Your task to perform on an android device: turn pop-ups off in chrome Image 0: 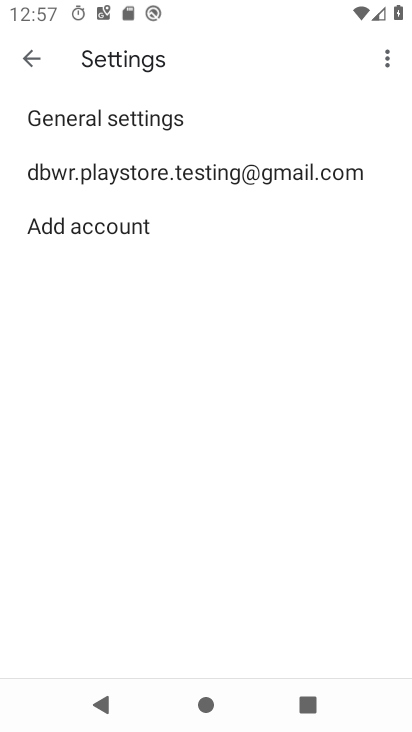
Step 0: press home button
Your task to perform on an android device: turn pop-ups off in chrome Image 1: 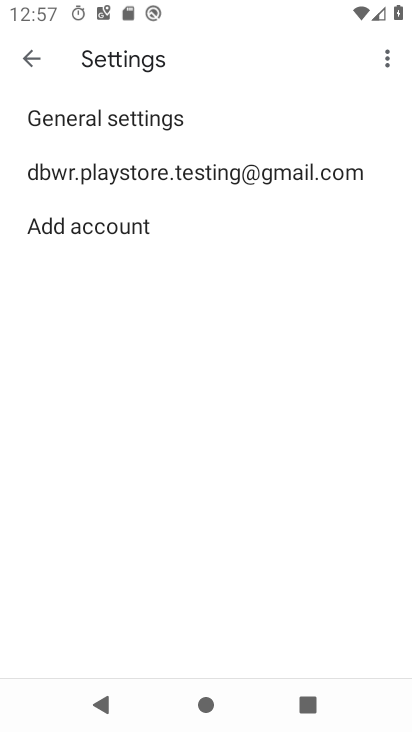
Step 1: press home button
Your task to perform on an android device: turn pop-ups off in chrome Image 2: 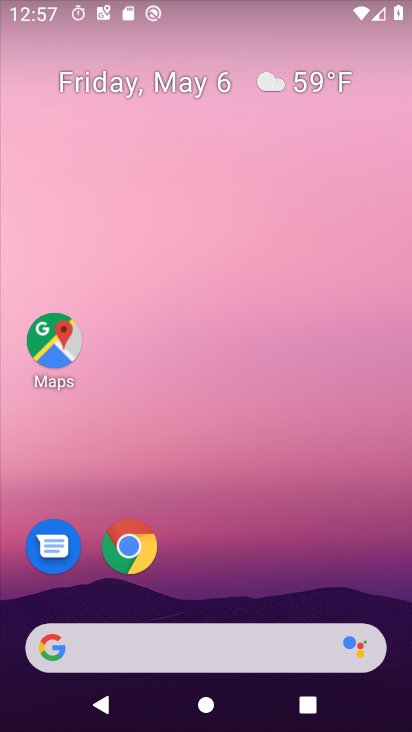
Step 2: drag from (284, 549) to (109, 720)
Your task to perform on an android device: turn pop-ups off in chrome Image 3: 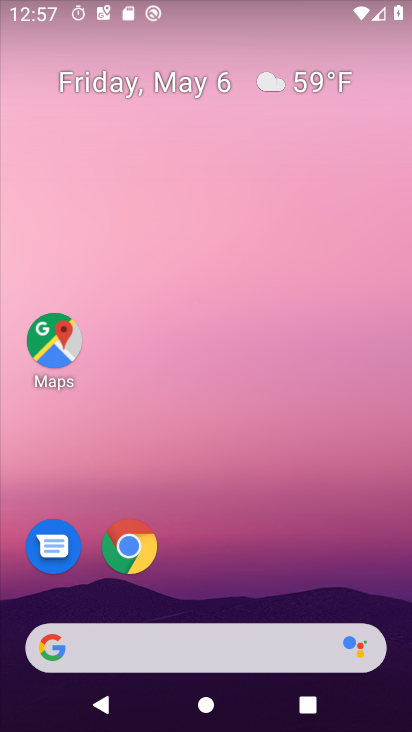
Step 3: click (129, 554)
Your task to perform on an android device: turn pop-ups off in chrome Image 4: 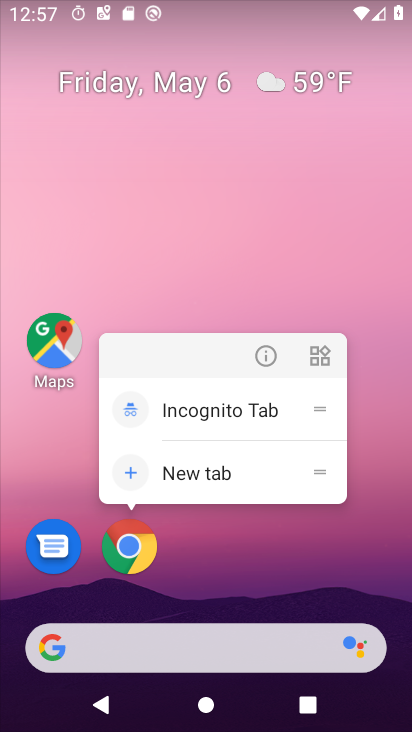
Step 4: click (128, 553)
Your task to perform on an android device: turn pop-ups off in chrome Image 5: 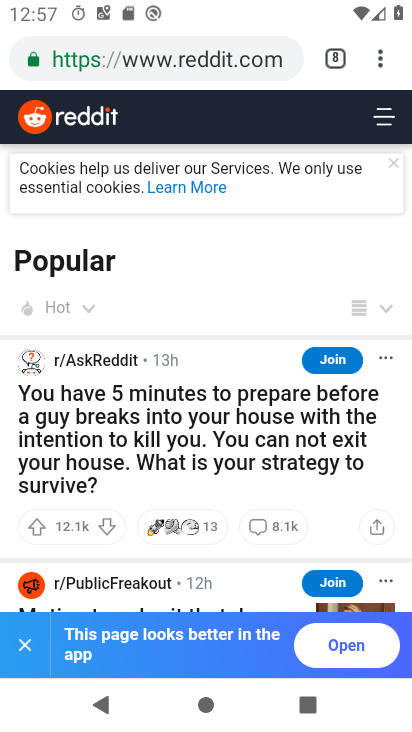
Step 5: click (381, 57)
Your task to perform on an android device: turn pop-ups off in chrome Image 6: 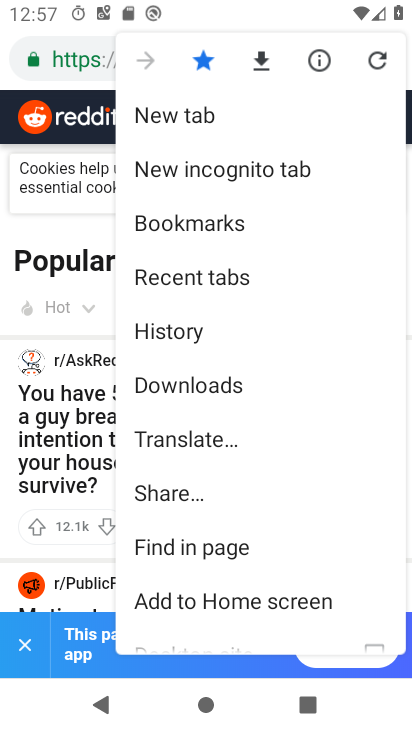
Step 6: drag from (275, 570) to (235, 276)
Your task to perform on an android device: turn pop-ups off in chrome Image 7: 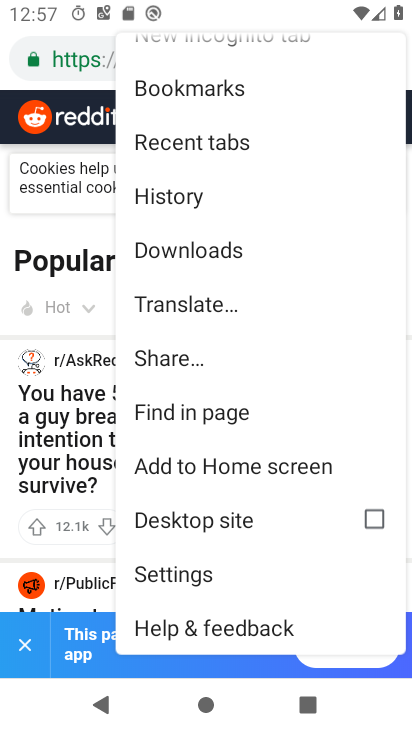
Step 7: click (205, 578)
Your task to perform on an android device: turn pop-ups off in chrome Image 8: 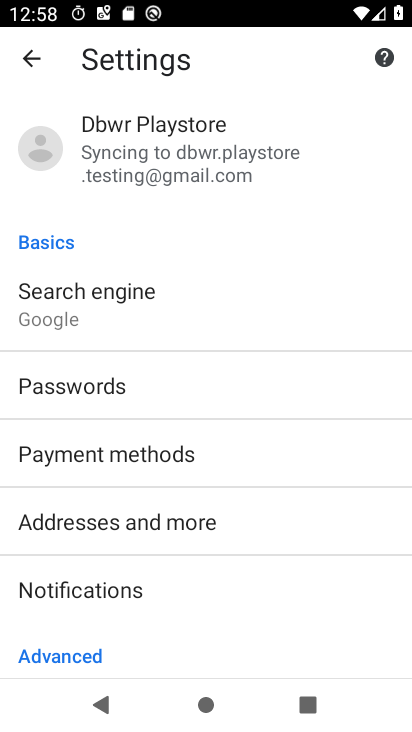
Step 8: drag from (209, 607) to (231, 236)
Your task to perform on an android device: turn pop-ups off in chrome Image 9: 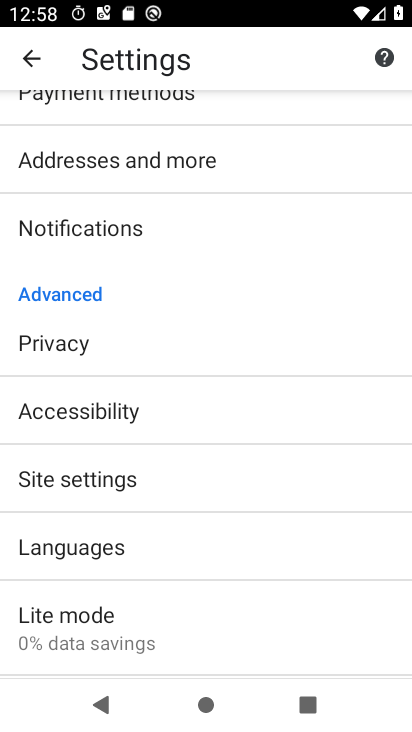
Step 9: click (122, 472)
Your task to perform on an android device: turn pop-ups off in chrome Image 10: 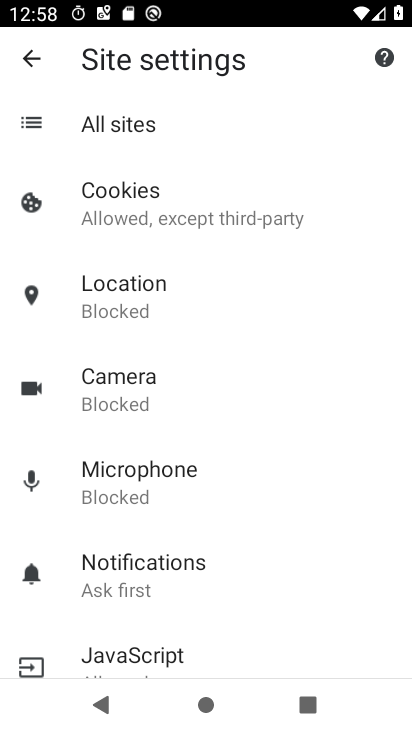
Step 10: drag from (203, 559) to (225, 295)
Your task to perform on an android device: turn pop-ups off in chrome Image 11: 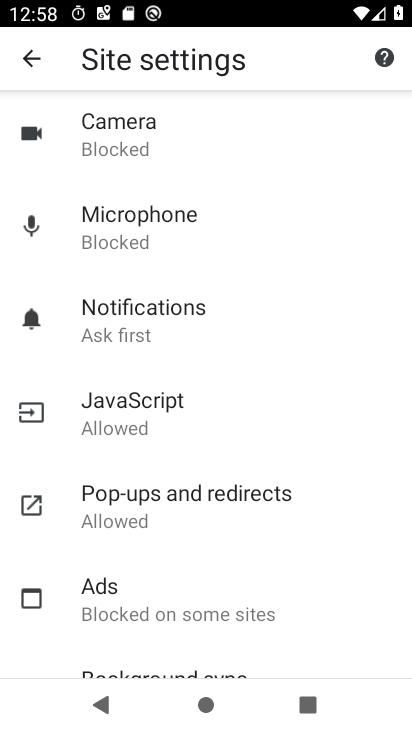
Step 11: click (202, 494)
Your task to perform on an android device: turn pop-ups off in chrome Image 12: 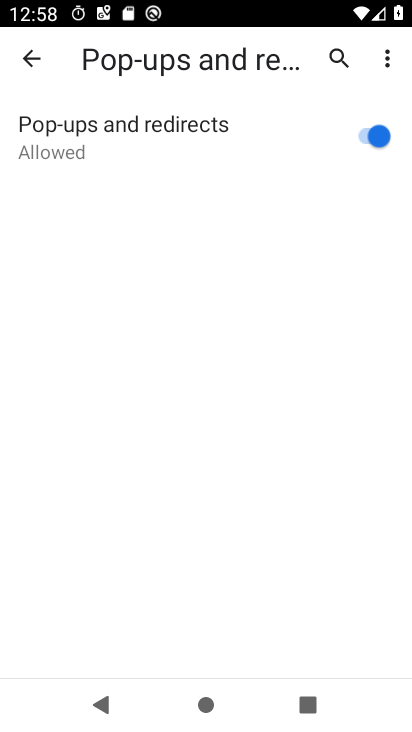
Step 12: click (370, 127)
Your task to perform on an android device: turn pop-ups off in chrome Image 13: 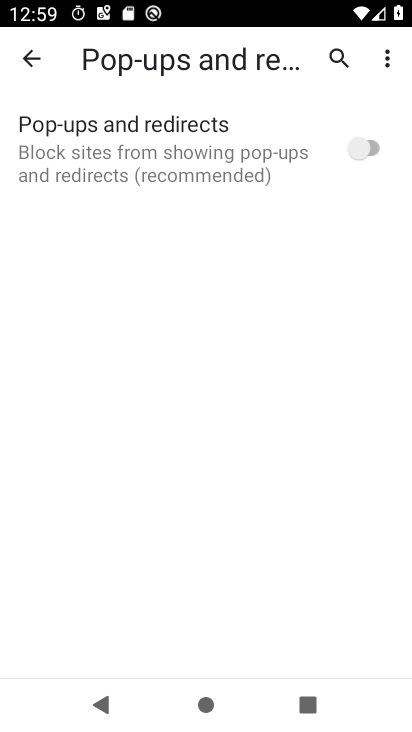
Step 13: task complete